Your task to perform on an android device: What is the recent news? Image 0: 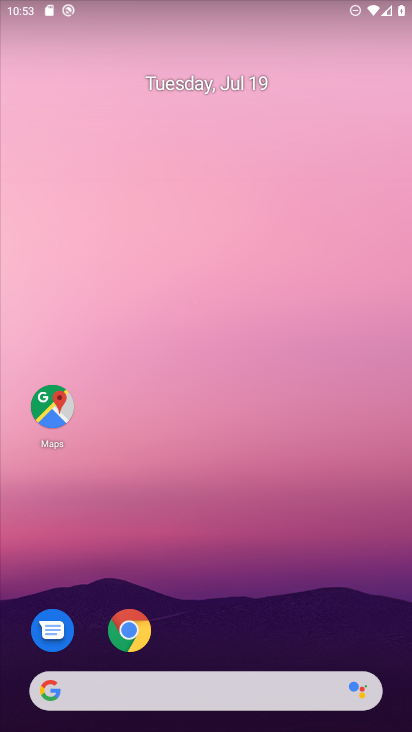
Step 0: drag from (208, 592) to (182, 190)
Your task to perform on an android device: What is the recent news? Image 1: 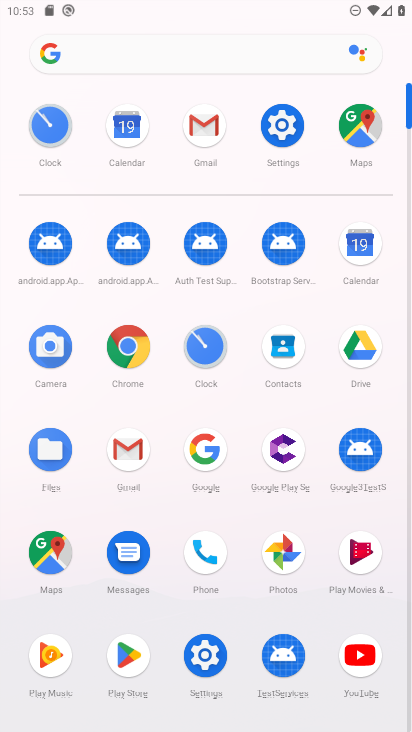
Step 1: click (208, 433)
Your task to perform on an android device: What is the recent news? Image 2: 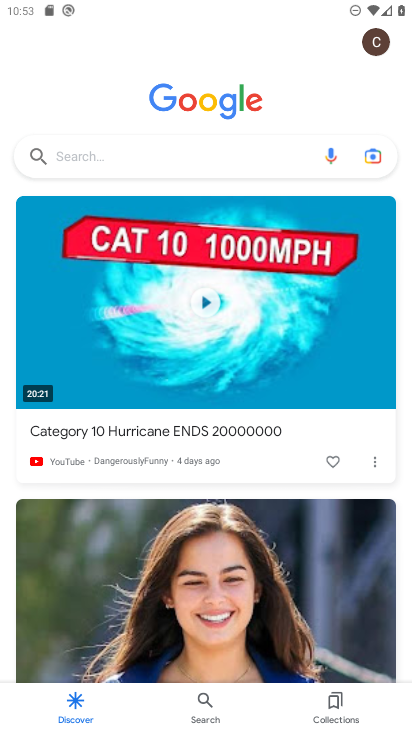
Step 2: click (149, 158)
Your task to perform on an android device: What is the recent news? Image 3: 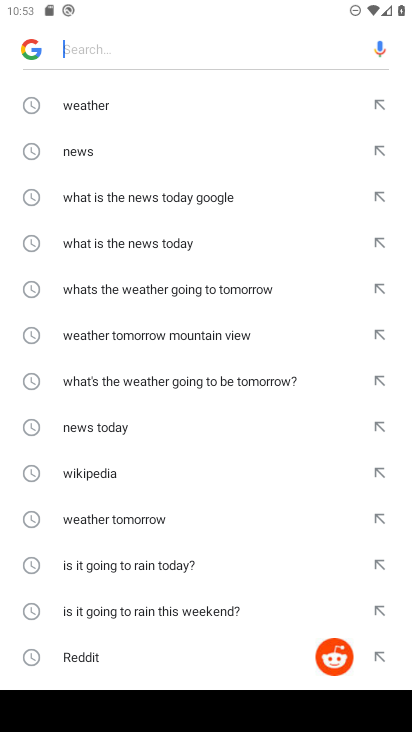
Step 3: click (109, 156)
Your task to perform on an android device: What is the recent news? Image 4: 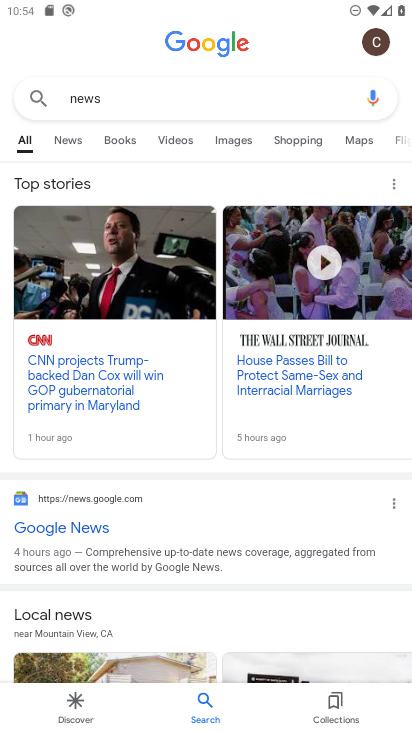
Step 4: click (72, 142)
Your task to perform on an android device: What is the recent news? Image 5: 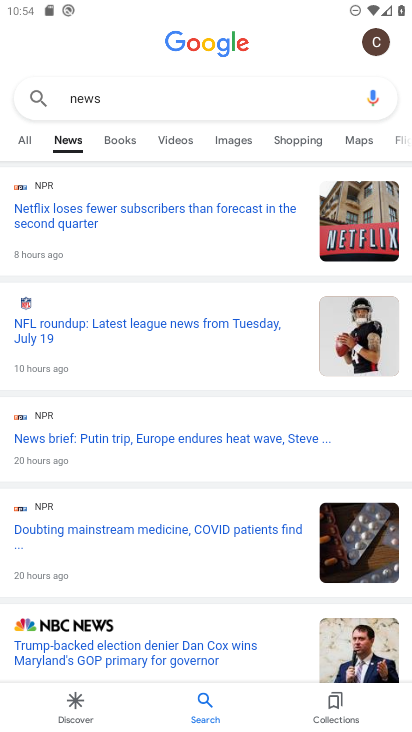
Step 5: task complete